Your task to perform on an android device: check data usage Image 0: 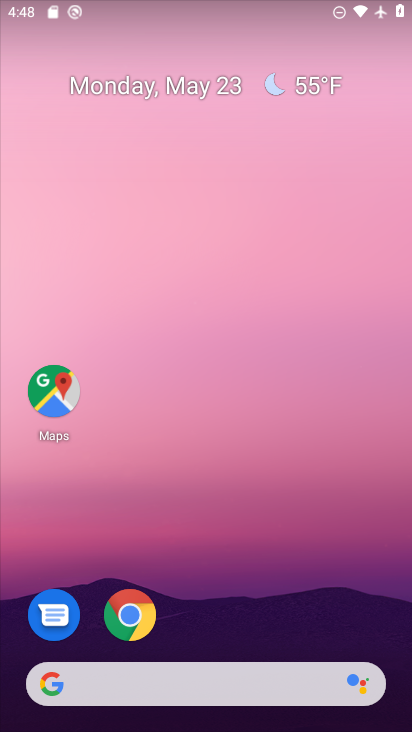
Step 0: drag from (391, 634) to (381, 198)
Your task to perform on an android device: check data usage Image 1: 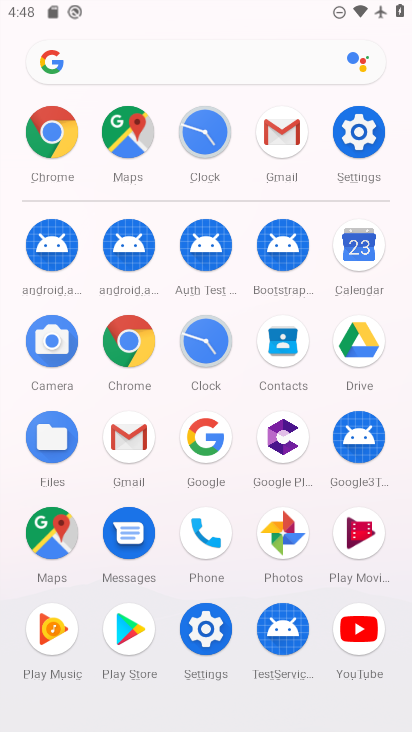
Step 1: click (201, 639)
Your task to perform on an android device: check data usage Image 2: 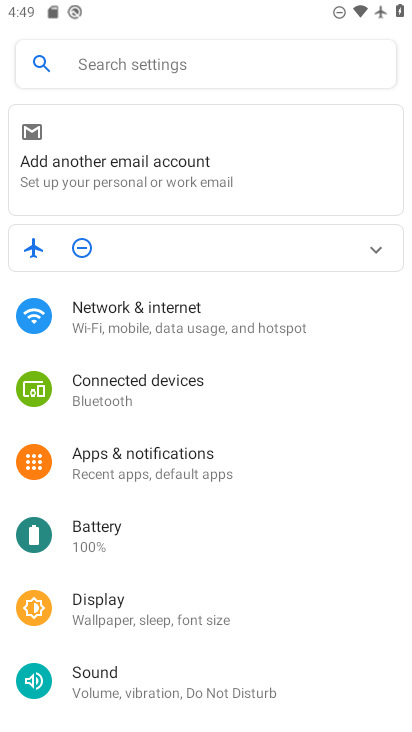
Step 2: drag from (337, 621) to (346, 485)
Your task to perform on an android device: check data usage Image 3: 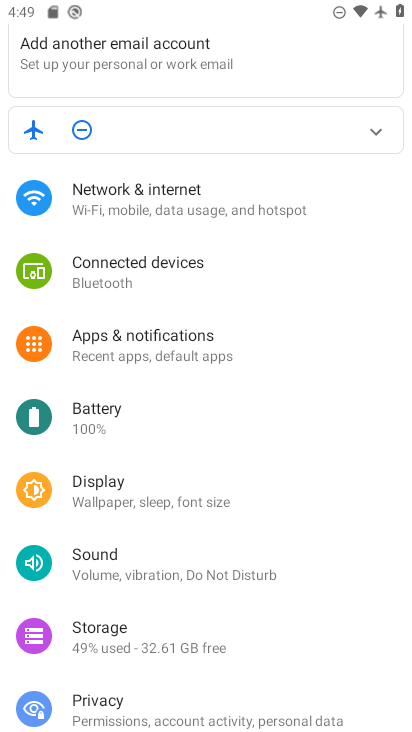
Step 3: drag from (331, 624) to (338, 512)
Your task to perform on an android device: check data usage Image 4: 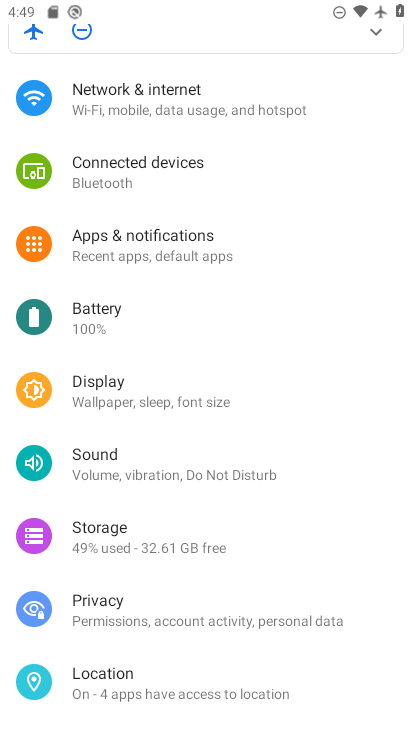
Step 4: drag from (347, 663) to (344, 575)
Your task to perform on an android device: check data usage Image 5: 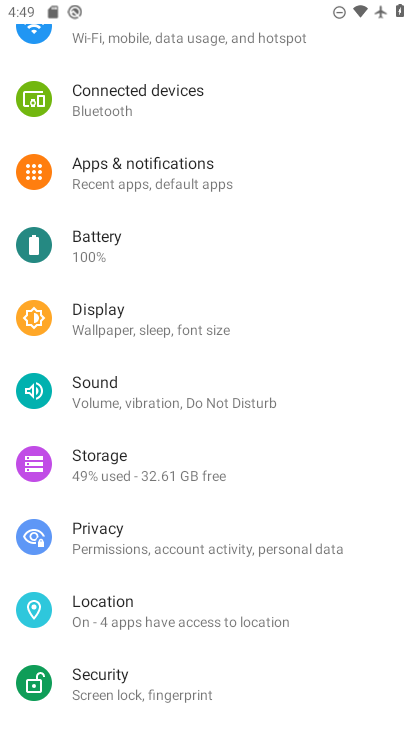
Step 5: drag from (342, 685) to (344, 571)
Your task to perform on an android device: check data usage Image 6: 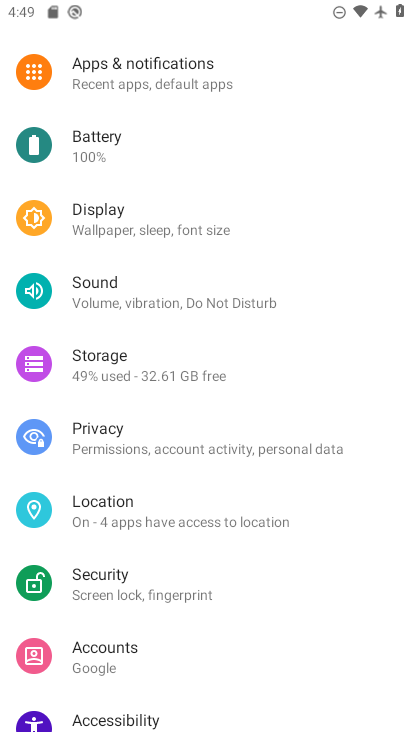
Step 6: drag from (344, 676) to (343, 588)
Your task to perform on an android device: check data usage Image 7: 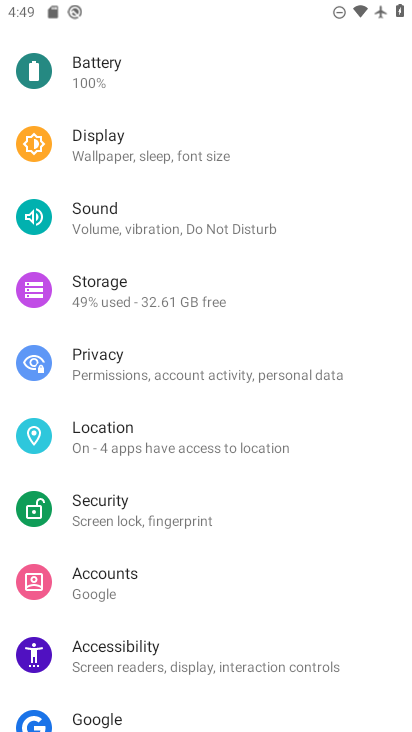
Step 7: drag from (344, 683) to (342, 575)
Your task to perform on an android device: check data usage Image 8: 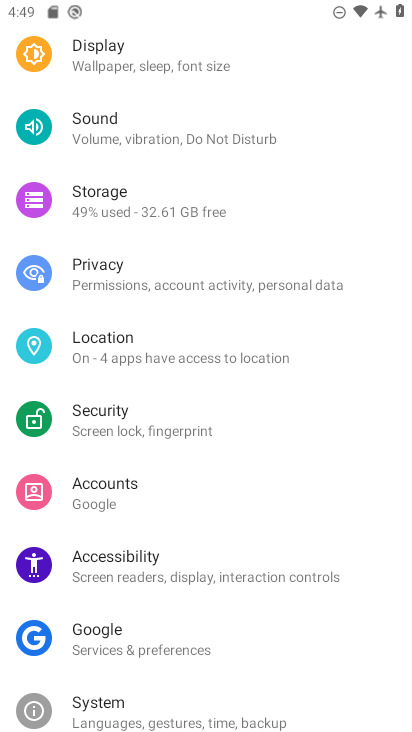
Step 8: drag from (327, 673) to (322, 540)
Your task to perform on an android device: check data usage Image 9: 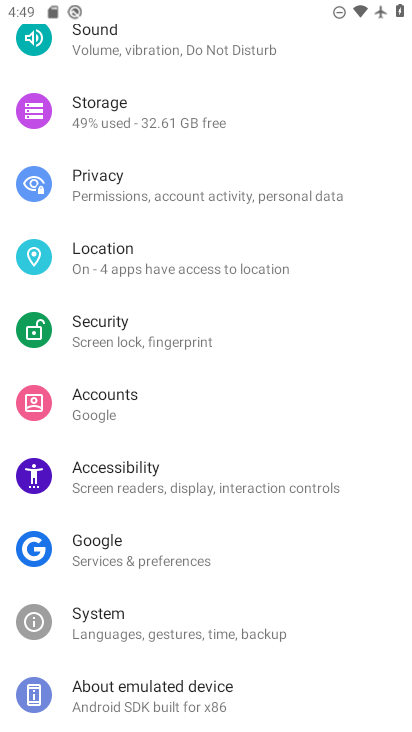
Step 9: drag from (330, 681) to (345, 514)
Your task to perform on an android device: check data usage Image 10: 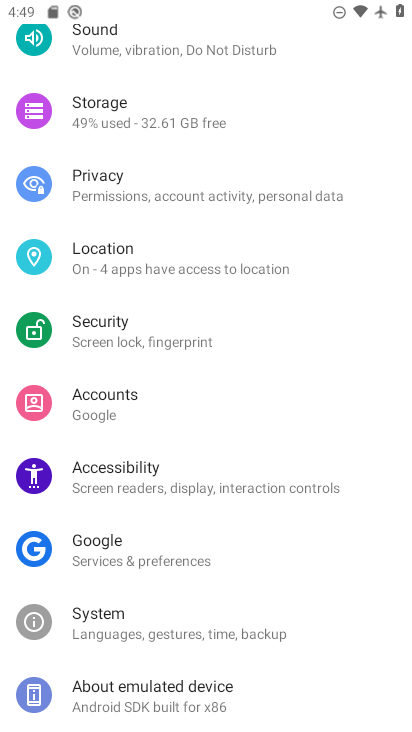
Step 10: drag from (347, 450) to (353, 551)
Your task to perform on an android device: check data usage Image 11: 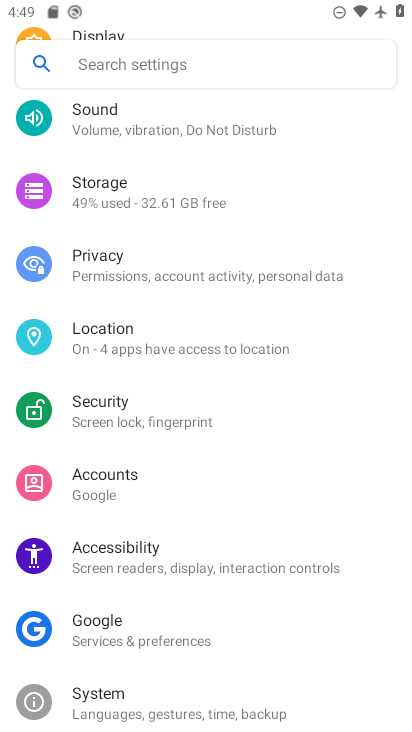
Step 11: drag from (354, 440) to (349, 552)
Your task to perform on an android device: check data usage Image 12: 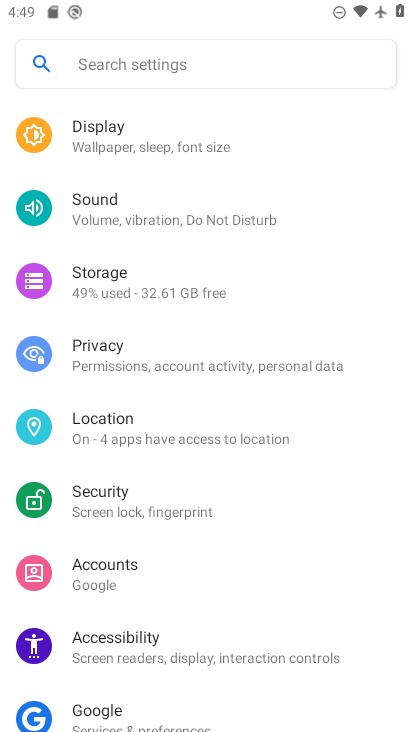
Step 12: drag from (332, 425) to (340, 584)
Your task to perform on an android device: check data usage Image 13: 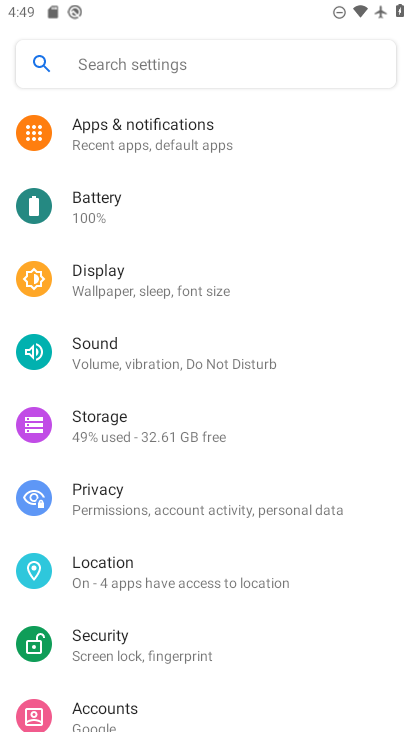
Step 13: drag from (355, 453) to (366, 588)
Your task to perform on an android device: check data usage Image 14: 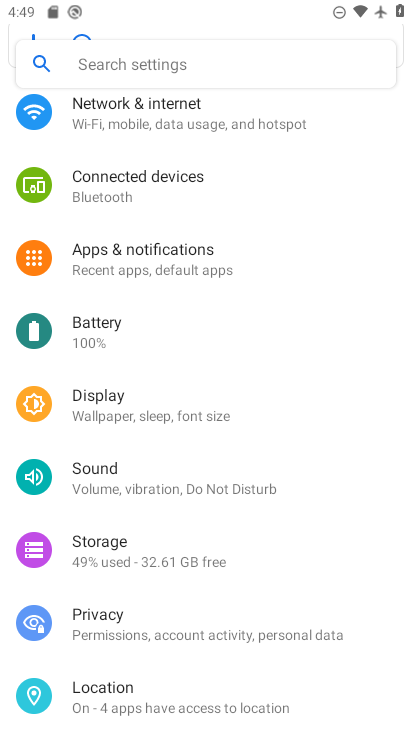
Step 14: drag from (343, 396) to (341, 551)
Your task to perform on an android device: check data usage Image 15: 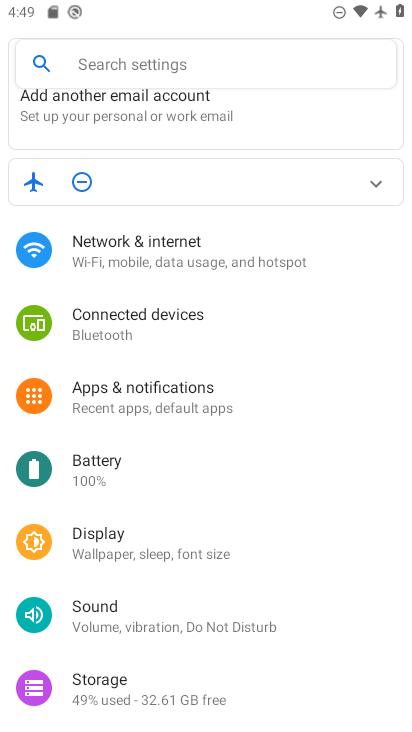
Step 15: drag from (331, 447) to (334, 547)
Your task to perform on an android device: check data usage Image 16: 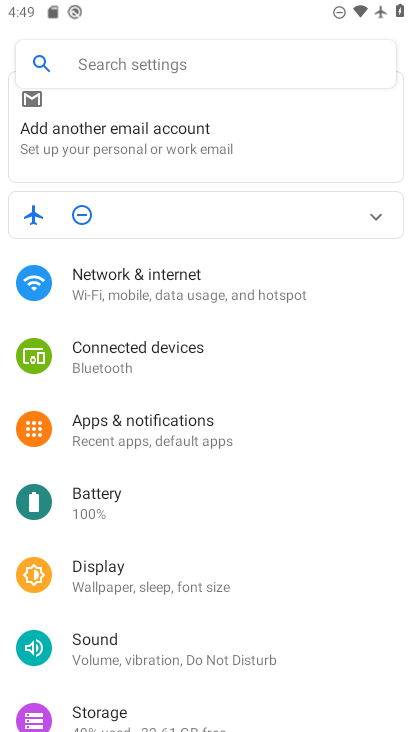
Step 16: click (250, 264)
Your task to perform on an android device: check data usage Image 17: 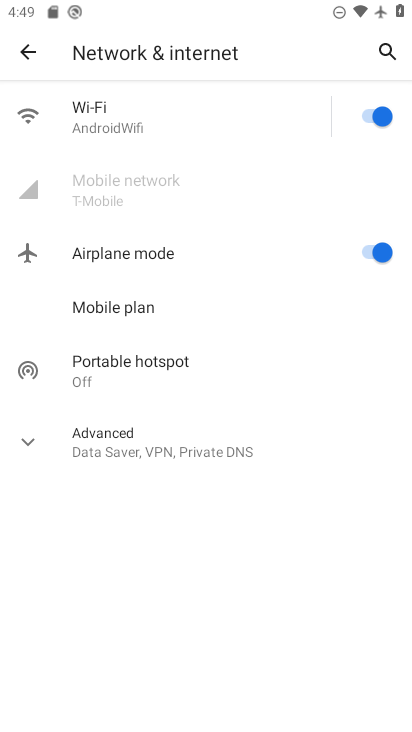
Step 17: click (146, 195)
Your task to perform on an android device: check data usage Image 18: 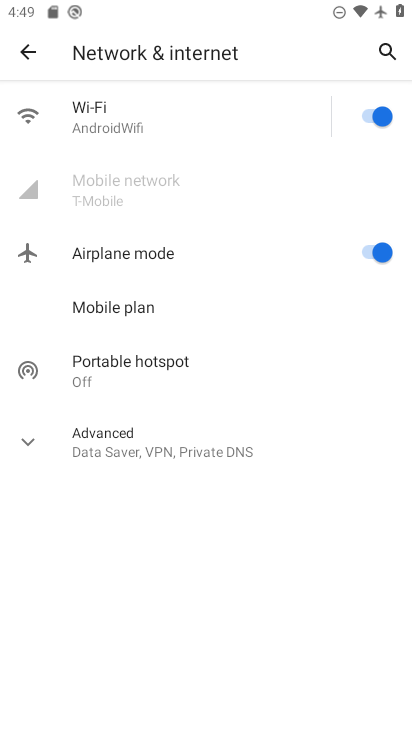
Step 18: task complete